Your task to perform on an android device: What's the weather today? Image 0: 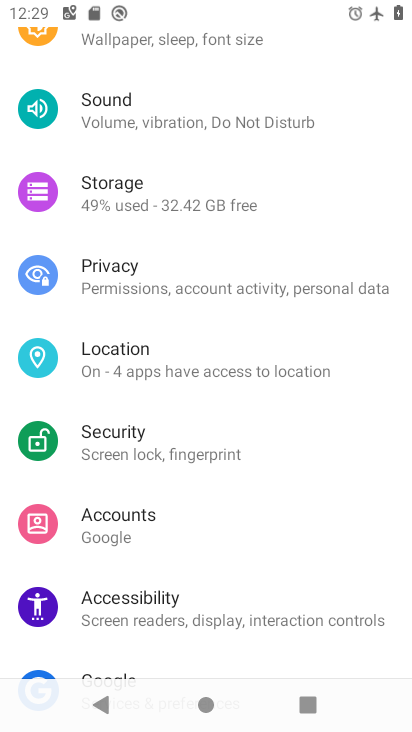
Step 0: press home button
Your task to perform on an android device: What's the weather today? Image 1: 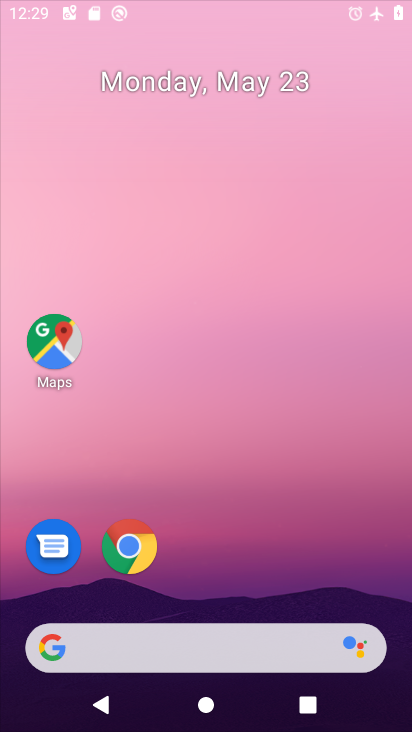
Step 1: drag from (173, 625) to (287, 62)
Your task to perform on an android device: What's the weather today? Image 2: 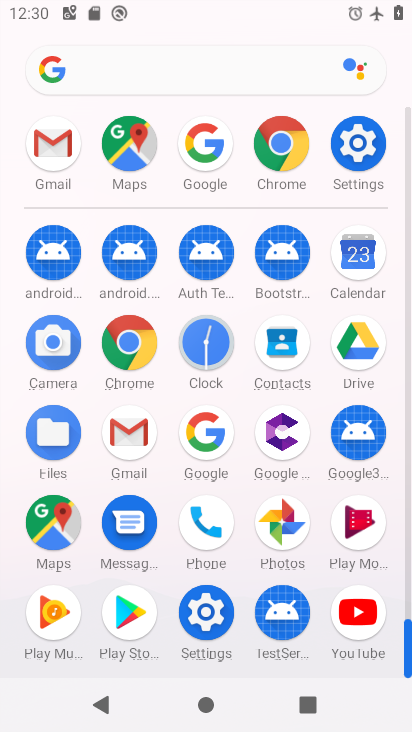
Step 2: click (208, 439)
Your task to perform on an android device: What's the weather today? Image 3: 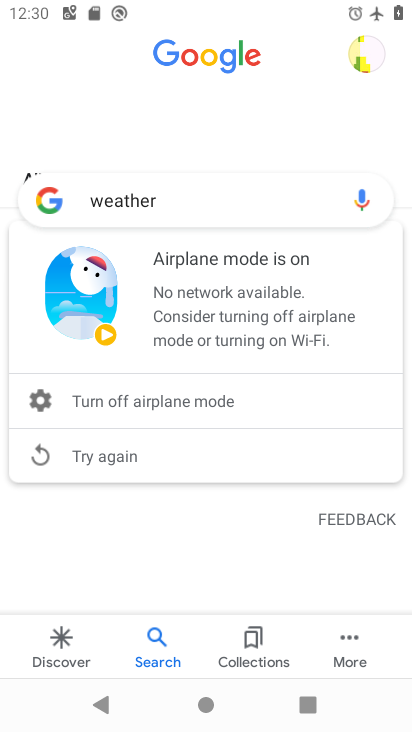
Step 3: click (246, 207)
Your task to perform on an android device: What's the weather today? Image 4: 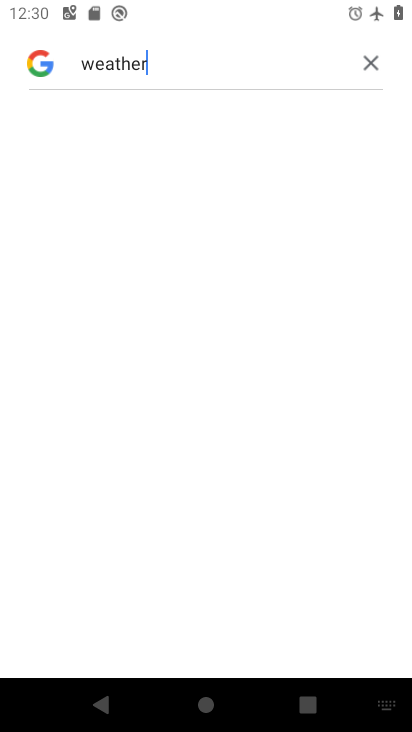
Step 4: task complete